Your task to perform on an android device: Open privacy settings Image 0: 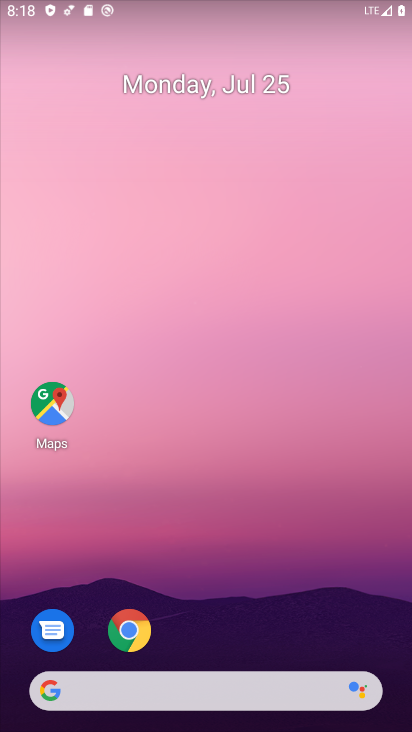
Step 0: click (152, 329)
Your task to perform on an android device: Open privacy settings Image 1: 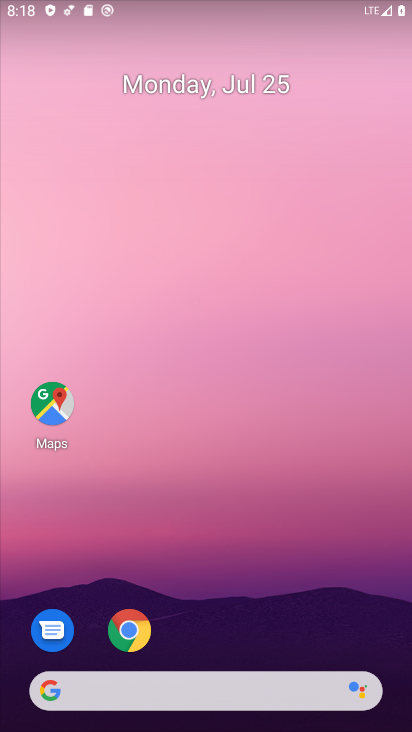
Step 1: drag from (35, 634) to (232, 92)
Your task to perform on an android device: Open privacy settings Image 2: 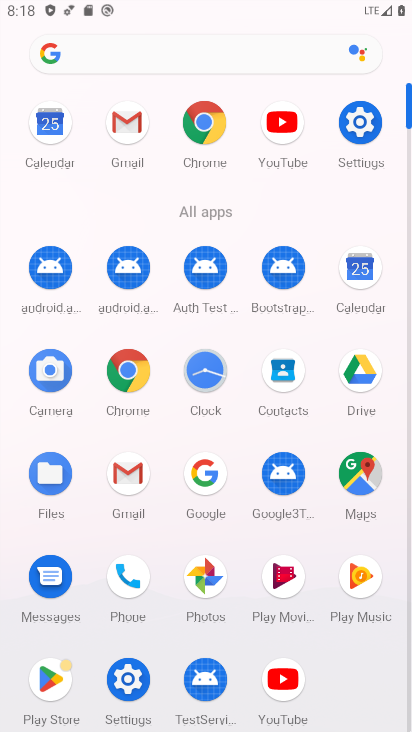
Step 2: click (126, 687)
Your task to perform on an android device: Open privacy settings Image 3: 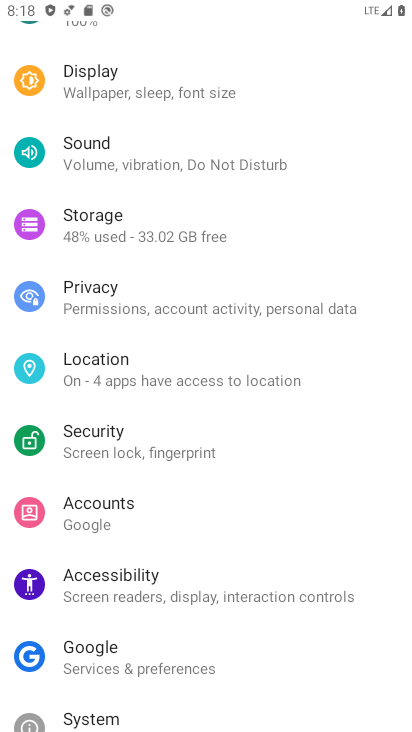
Step 3: click (207, 365)
Your task to perform on an android device: Open privacy settings Image 4: 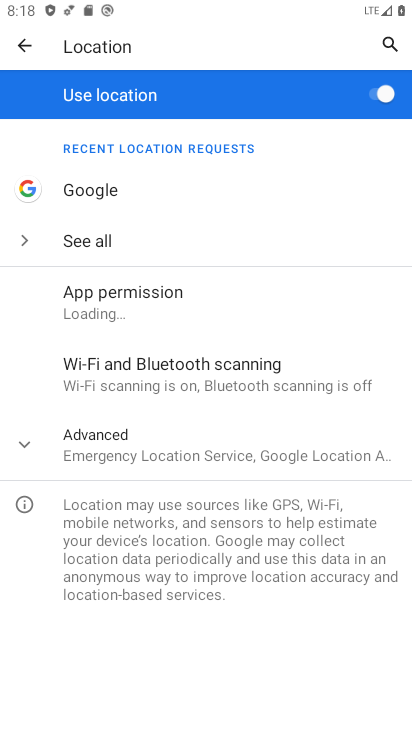
Step 4: click (13, 49)
Your task to perform on an android device: Open privacy settings Image 5: 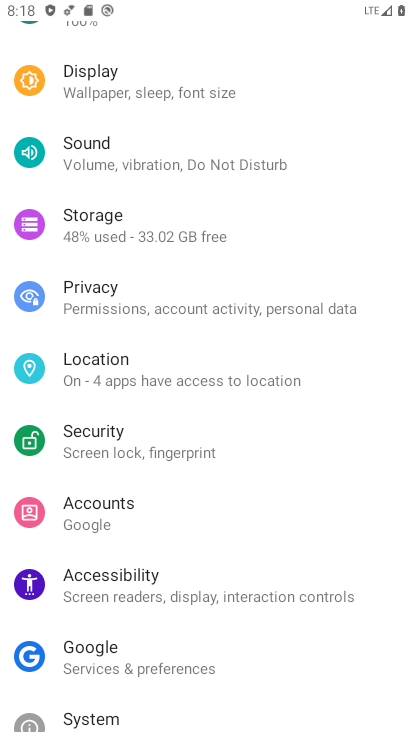
Step 5: click (171, 300)
Your task to perform on an android device: Open privacy settings Image 6: 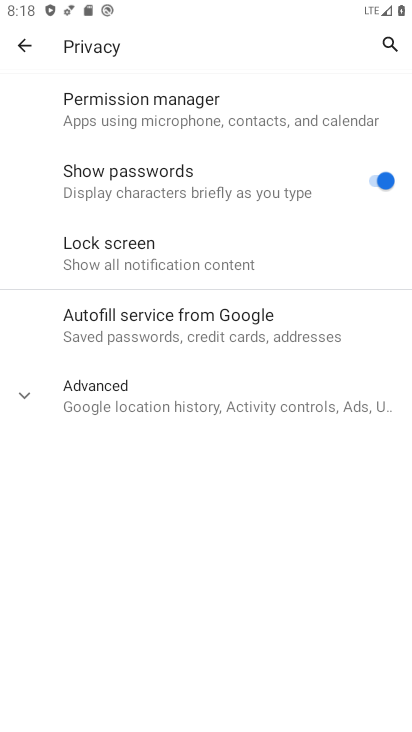
Step 6: task complete